Your task to perform on an android device: check storage Image 0: 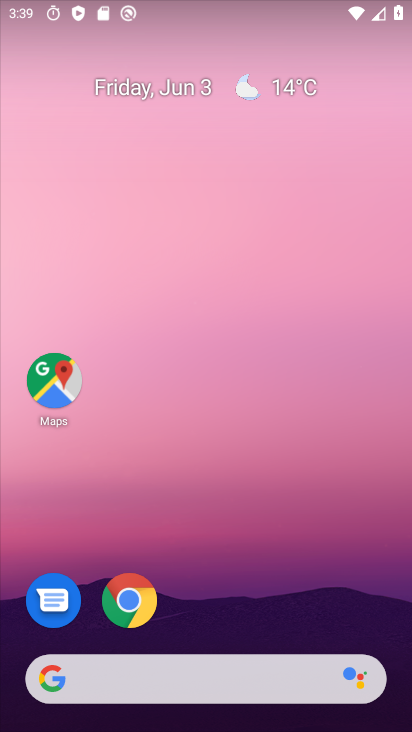
Step 0: drag from (242, 593) to (186, 30)
Your task to perform on an android device: check storage Image 1: 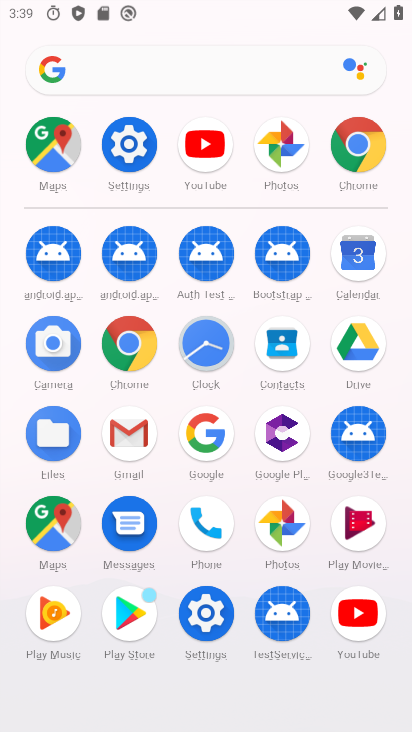
Step 1: click (204, 609)
Your task to perform on an android device: check storage Image 2: 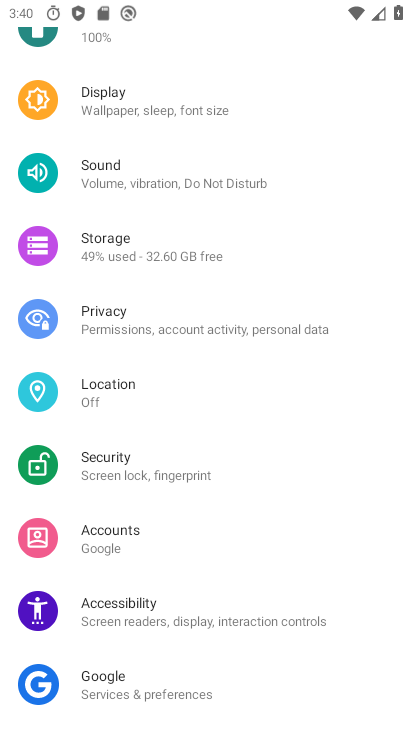
Step 2: drag from (243, 140) to (201, 538)
Your task to perform on an android device: check storage Image 3: 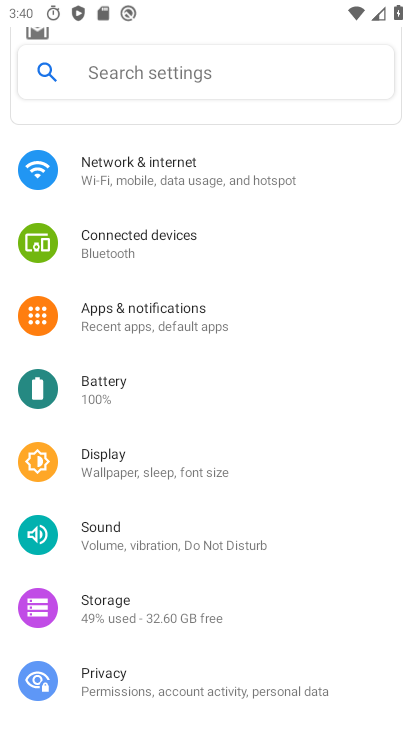
Step 3: drag from (277, 257) to (302, 493)
Your task to perform on an android device: check storage Image 4: 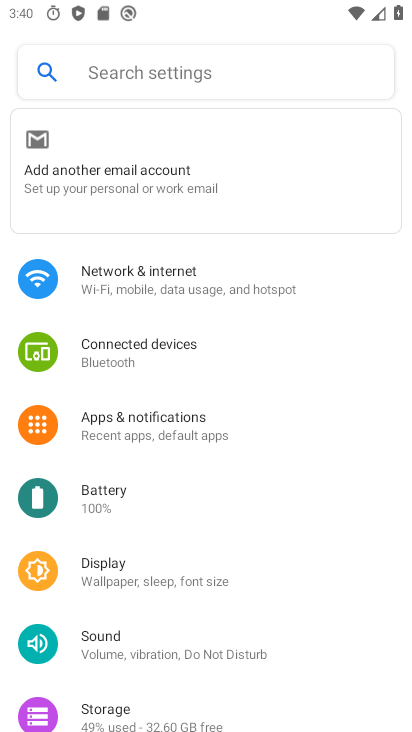
Step 4: drag from (222, 632) to (258, 256)
Your task to perform on an android device: check storage Image 5: 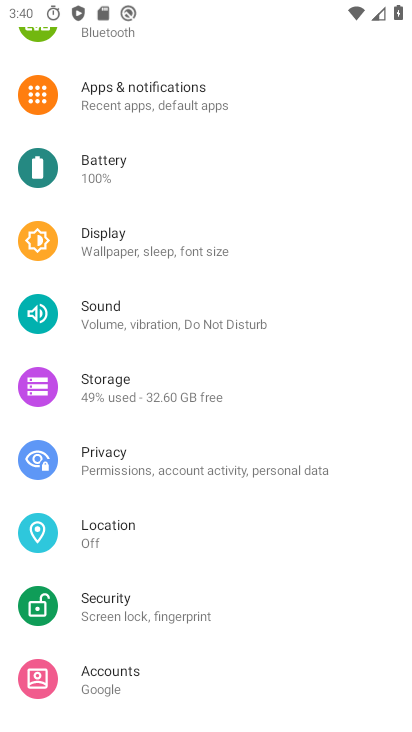
Step 5: click (157, 394)
Your task to perform on an android device: check storage Image 6: 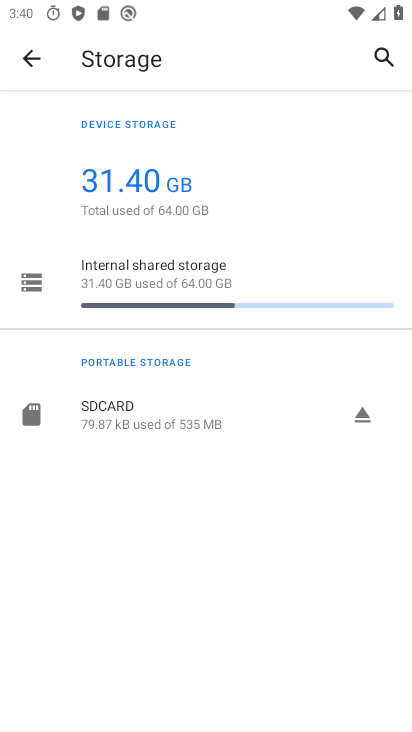
Step 6: task complete